Your task to perform on an android device: Open calendar and show me the second week of next month Image 0: 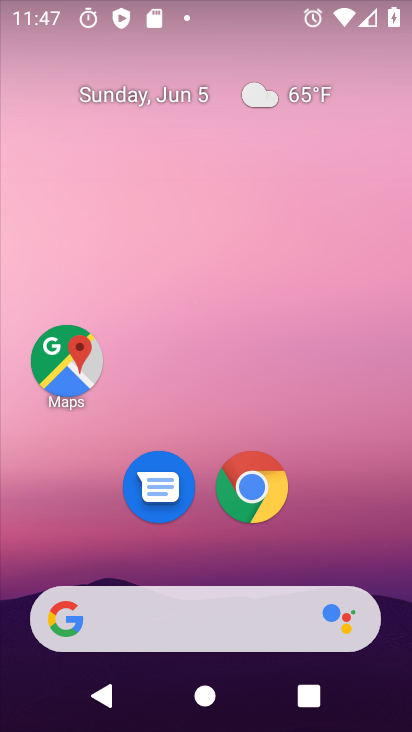
Step 0: drag from (331, 529) to (238, 121)
Your task to perform on an android device: Open calendar and show me the second week of next month Image 1: 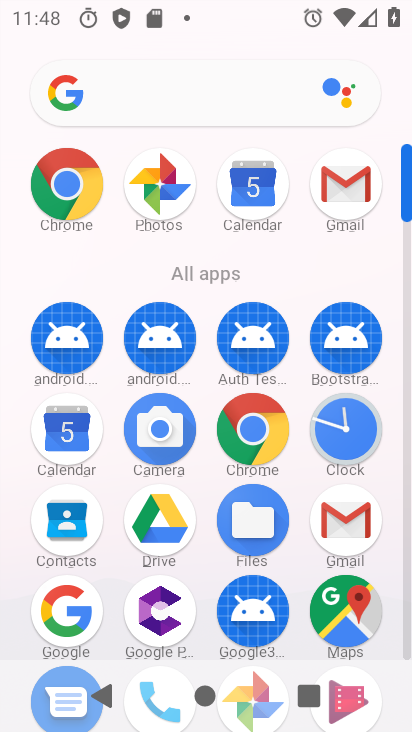
Step 1: click (252, 187)
Your task to perform on an android device: Open calendar and show me the second week of next month Image 2: 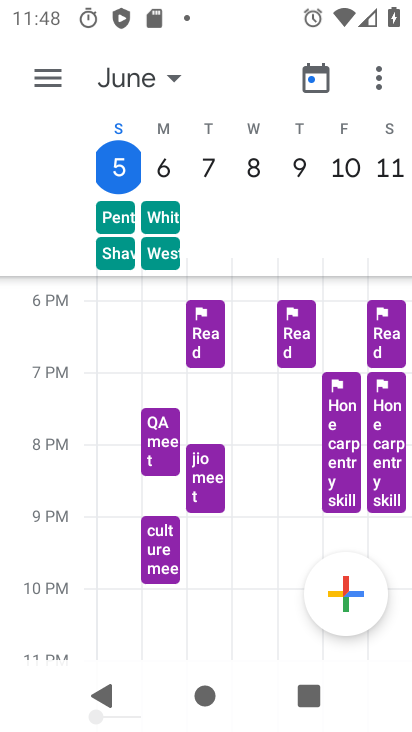
Step 2: click (316, 79)
Your task to perform on an android device: Open calendar and show me the second week of next month Image 3: 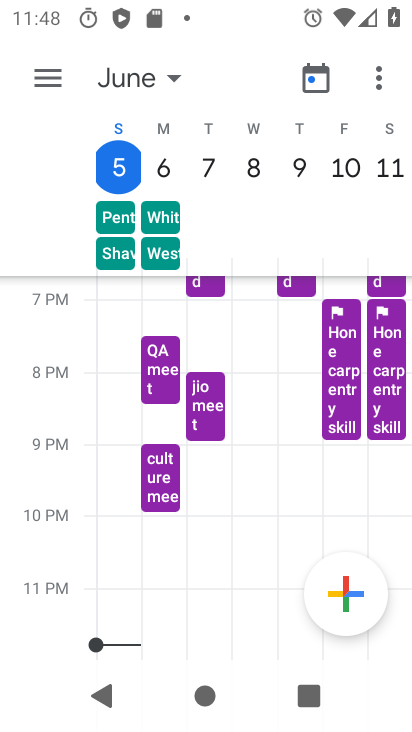
Step 3: click (167, 71)
Your task to perform on an android device: Open calendar and show me the second week of next month Image 4: 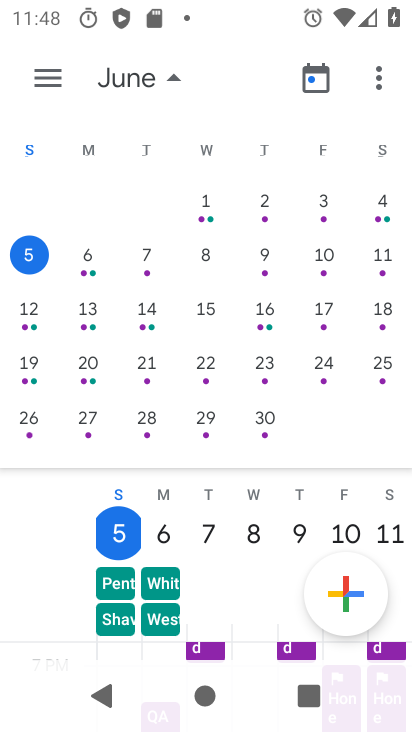
Step 4: drag from (358, 286) to (6, 315)
Your task to perform on an android device: Open calendar and show me the second week of next month Image 5: 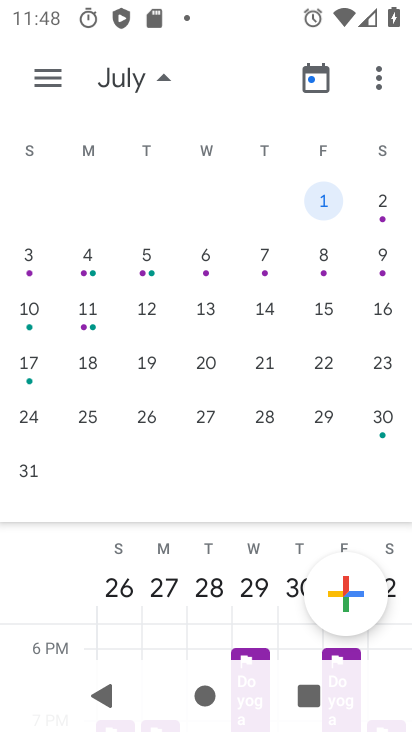
Step 5: click (81, 317)
Your task to perform on an android device: Open calendar and show me the second week of next month Image 6: 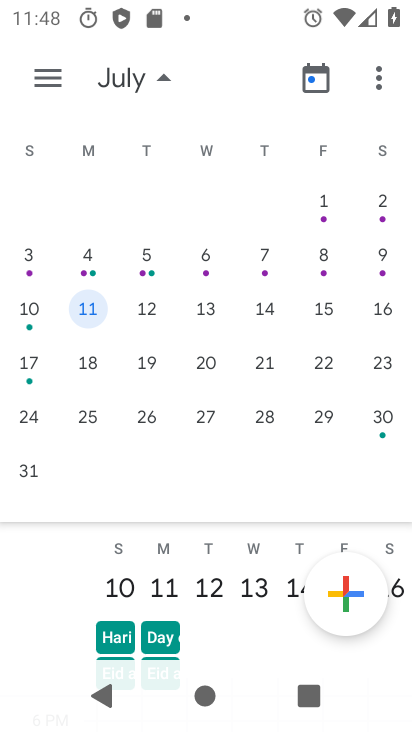
Step 6: click (39, 79)
Your task to perform on an android device: Open calendar and show me the second week of next month Image 7: 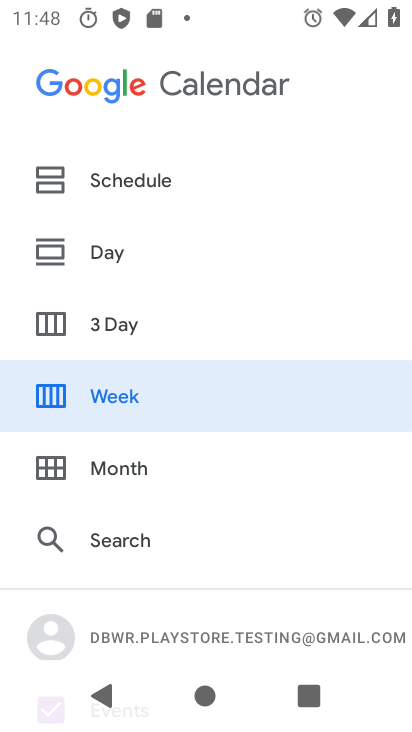
Step 7: click (108, 412)
Your task to perform on an android device: Open calendar and show me the second week of next month Image 8: 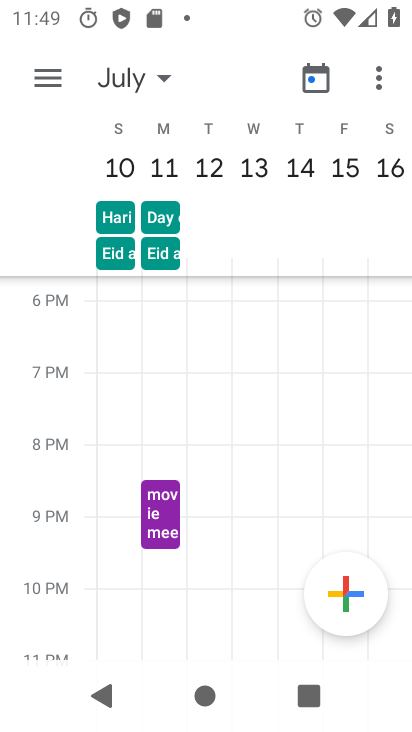
Step 8: task complete